Your task to perform on an android device: create a new album in the google photos Image 0: 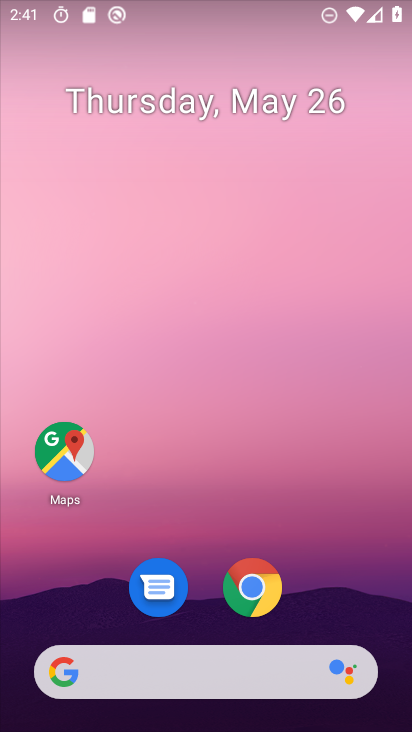
Step 0: drag from (261, 510) to (276, 174)
Your task to perform on an android device: create a new album in the google photos Image 1: 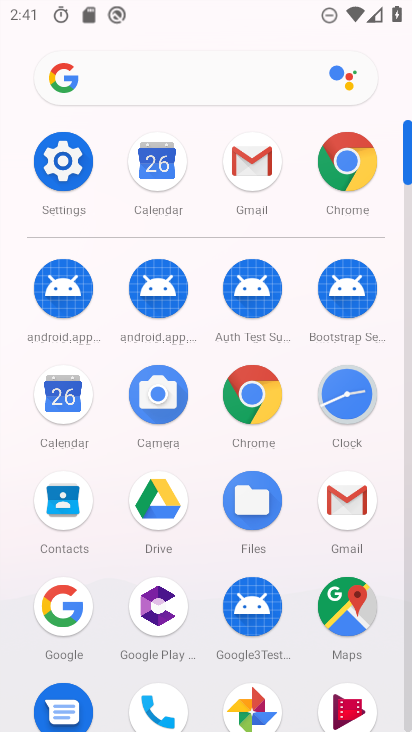
Step 1: drag from (280, 583) to (290, 289)
Your task to perform on an android device: create a new album in the google photos Image 2: 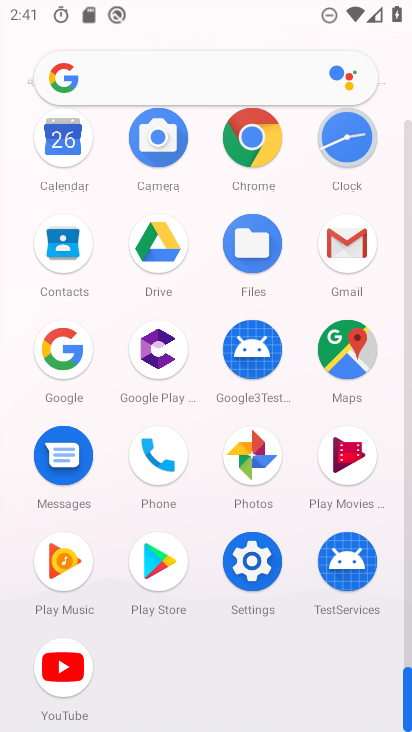
Step 2: click (255, 472)
Your task to perform on an android device: create a new album in the google photos Image 3: 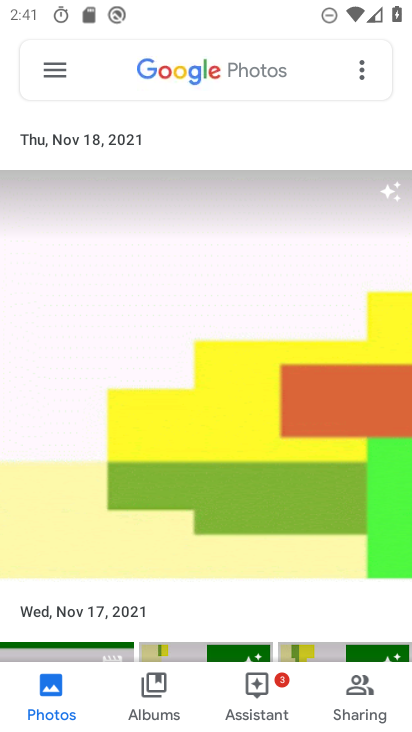
Step 3: click (151, 682)
Your task to perform on an android device: create a new album in the google photos Image 4: 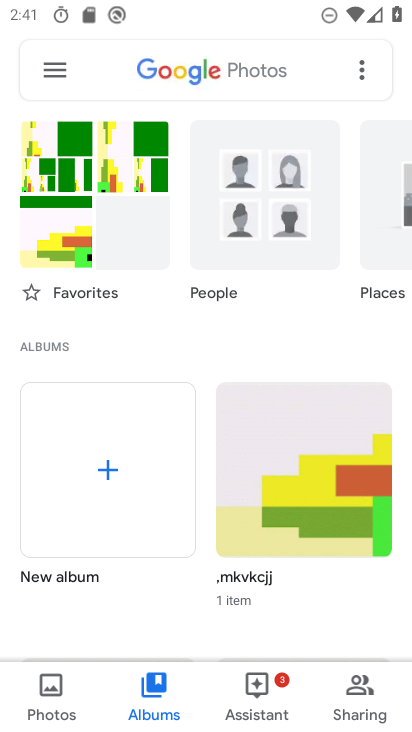
Step 4: click (364, 61)
Your task to perform on an android device: create a new album in the google photos Image 5: 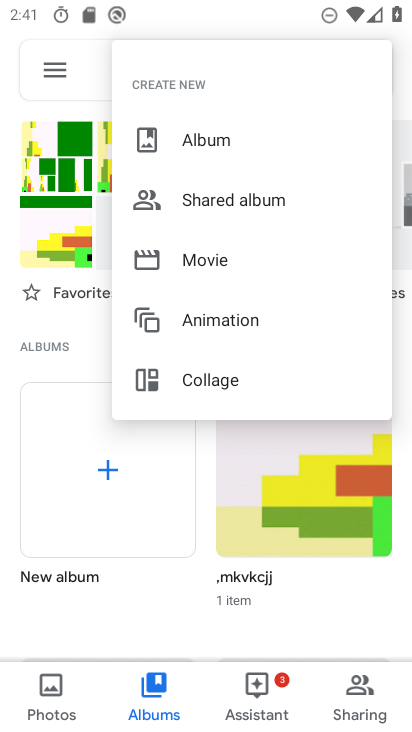
Step 5: click (208, 137)
Your task to perform on an android device: create a new album in the google photos Image 6: 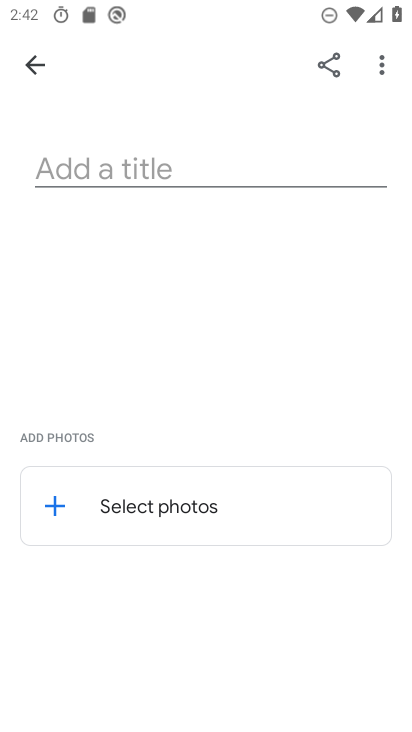
Step 6: click (219, 156)
Your task to perform on an android device: create a new album in the google photos Image 7: 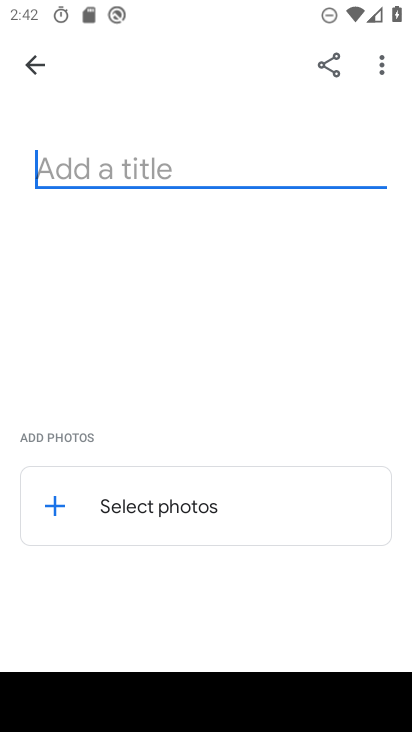
Step 7: type "gowamoskile"
Your task to perform on an android device: create a new album in the google photos Image 8: 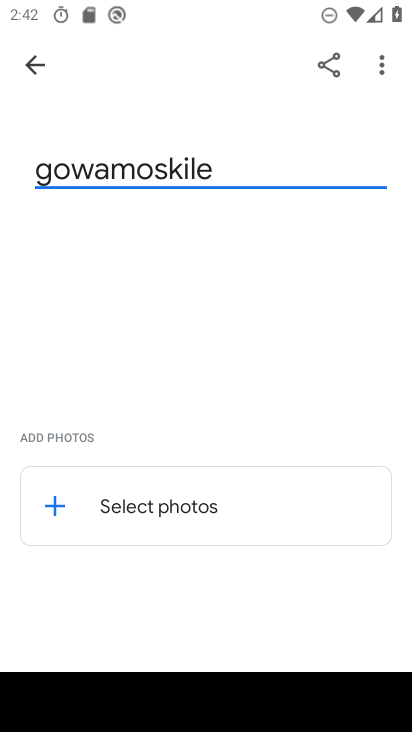
Step 8: click (160, 492)
Your task to perform on an android device: create a new album in the google photos Image 9: 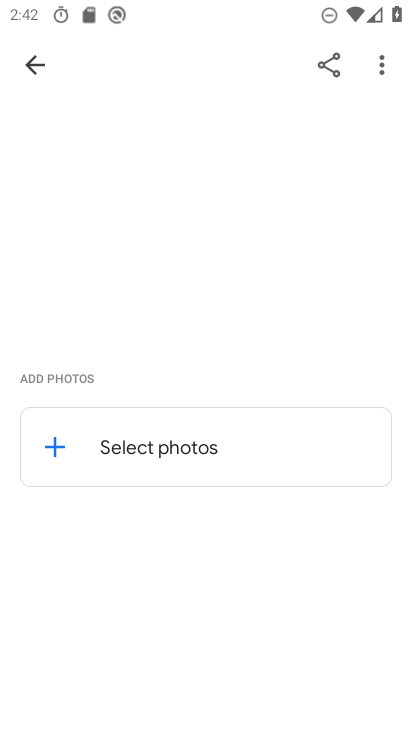
Step 9: click (140, 418)
Your task to perform on an android device: create a new album in the google photos Image 10: 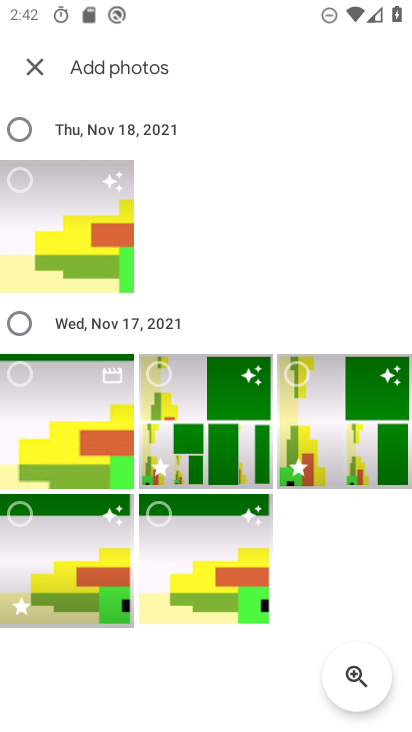
Step 10: click (81, 192)
Your task to perform on an android device: create a new album in the google photos Image 11: 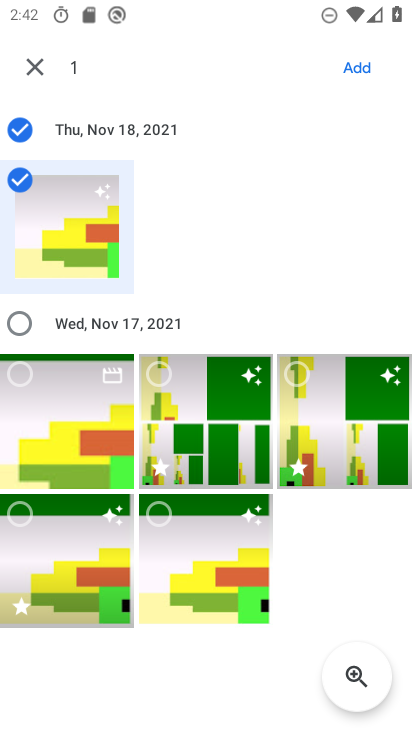
Step 11: click (369, 68)
Your task to perform on an android device: create a new album in the google photos Image 12: 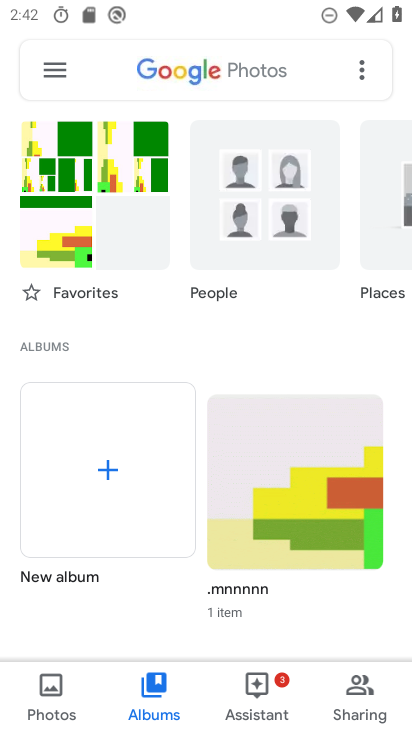
Step 12: task complete